Your task to perform on an android device: turn off picture-in-picture Image 0: 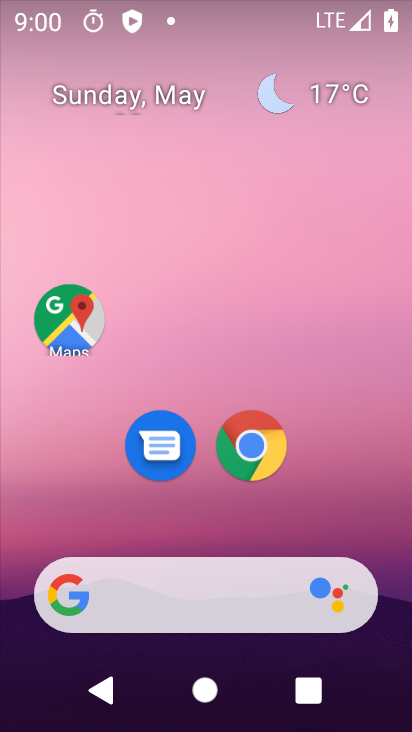
Step 0: drag from (207, 525) to (254, 130)
Your task to perform on an android device: turn off picture-in-picture Image 1: 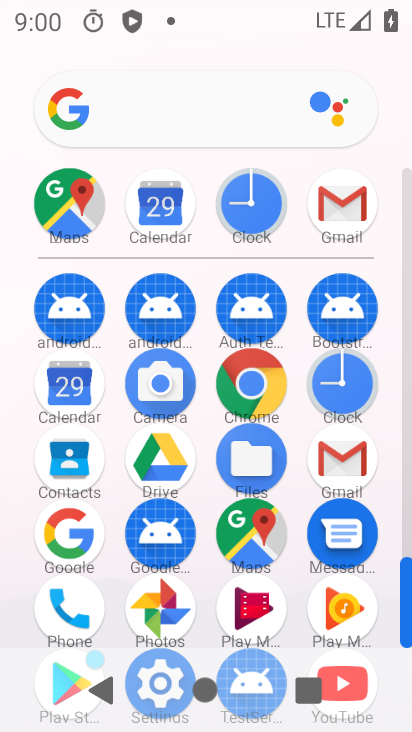
Step 1: drag from (202, 642) to (220, 206)
Your task to perform on an android device: turn off picture-in-picture Image 2: 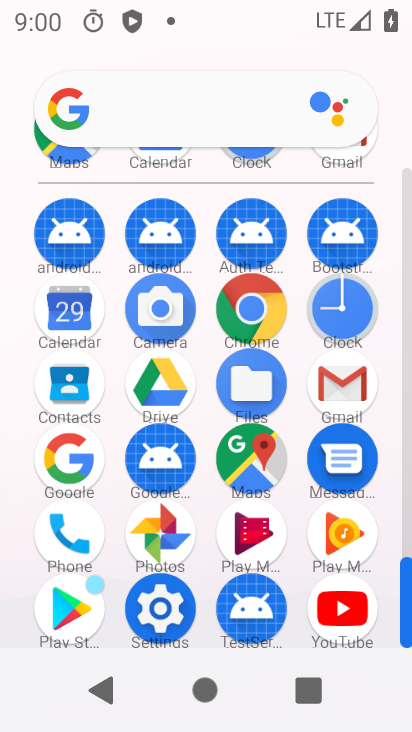
Step 2: click (160, 609)
Your task to perform on an android device: turn off picture-in-picture Image 3: 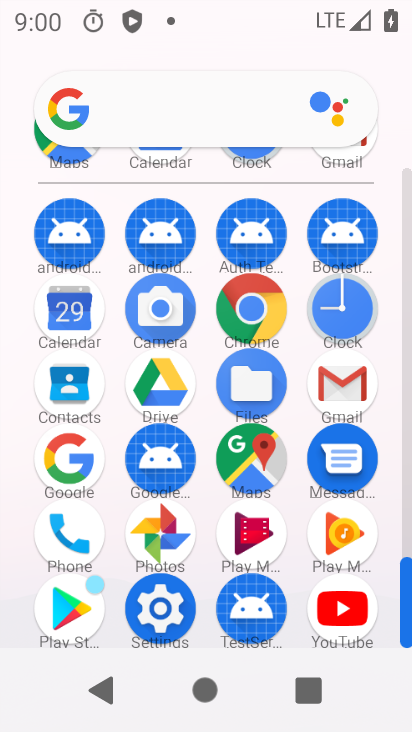
Step 3: click (160, 609)
Your task to perform on an android device: turn off picture-in-picture Image 4: 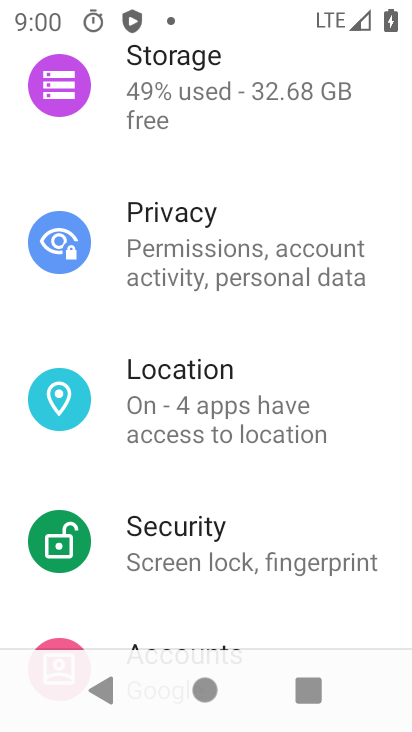
Step 4: drag from (160, 482) to (230, 215)
Your task to perform on an android device: turn off picture-in-picture Image 5: 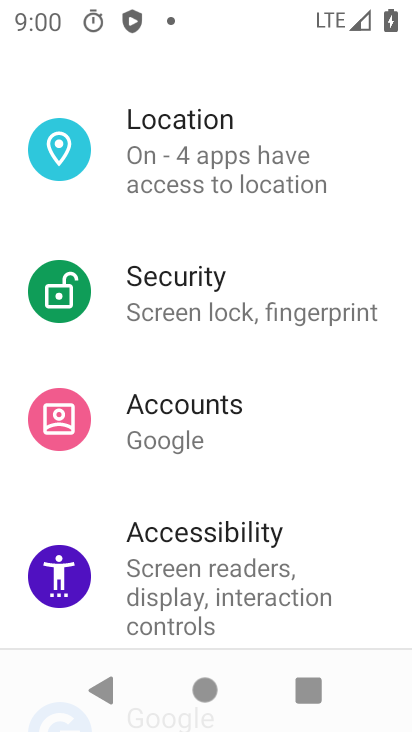
Step 5: drag from (229, 162) to (213, 720)
Your task to perform on an android device: turn off picture-in-picture Image 6: 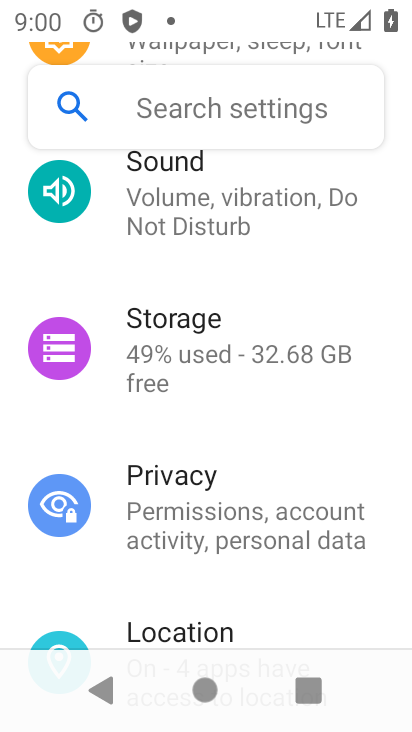
Step 6: drag from (226, 520) to (300, 696)
Your task to perform on an android device: turn off picture-in-picture Image 7: 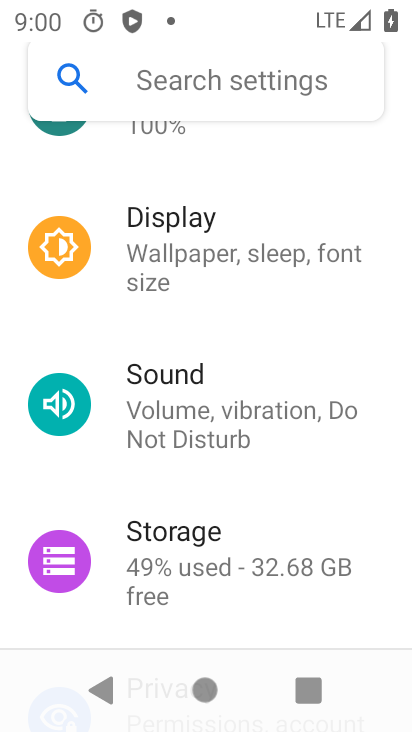
Step 7: drag from (179, 249) to (261, 647)
Your task to perform on an android device: turn off picture-in-picture Image 8: 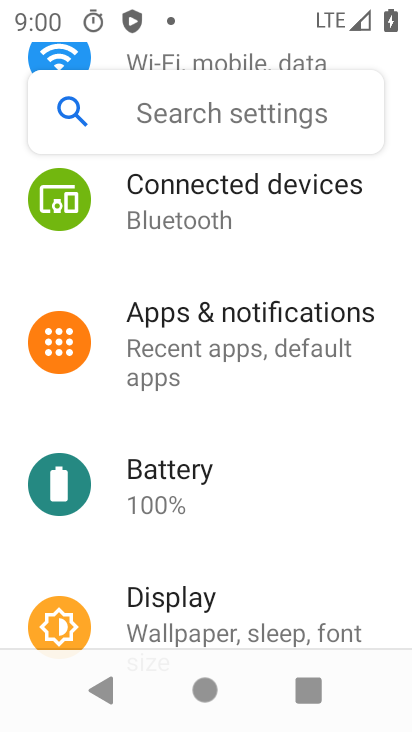
Step 8: click (213, 355)
Your task to perform on an android device: turn off picture-in-picture Image 9: 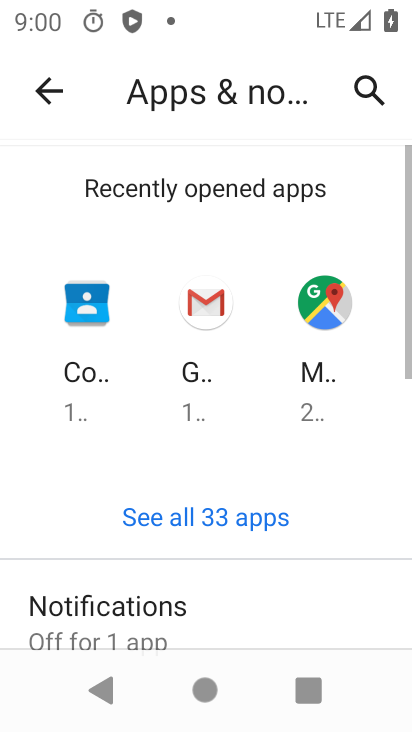
Step 9: drag from (210, 545) to (308, 100)
Your task to perform on an android device: turn off picture-in-picture Image 10: 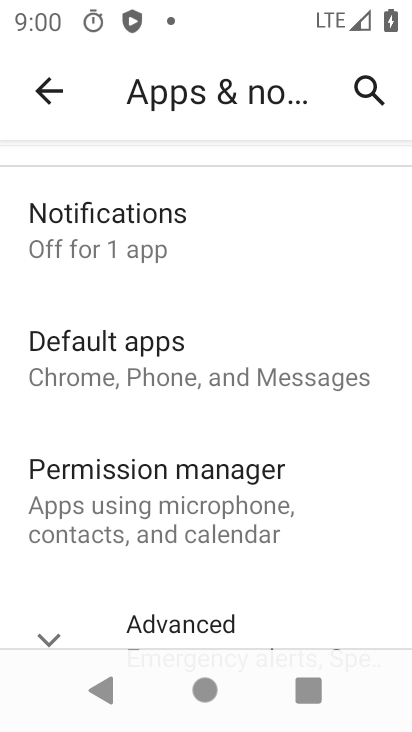
Step 10: drag from (179, 551) to (333, 101)
Your task to perform on an android device: turn off picture-in-picture Image 11: 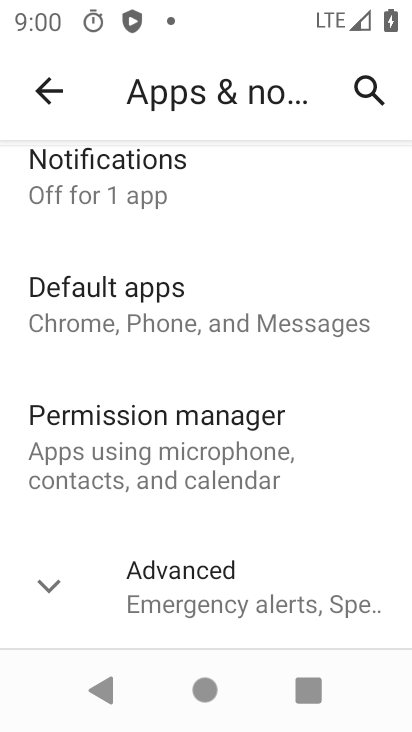
Step 11: click (184, 592)
Your task to perform on an android device: turn off picture-in-picture Image 12: 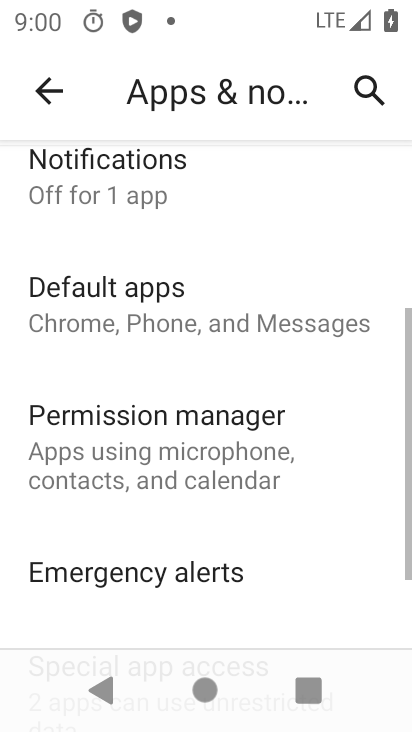
Step 12: drag from (185, 583) to (312, 81)
Your task to perform on an android device: turn off picture-in-picture Image 13: 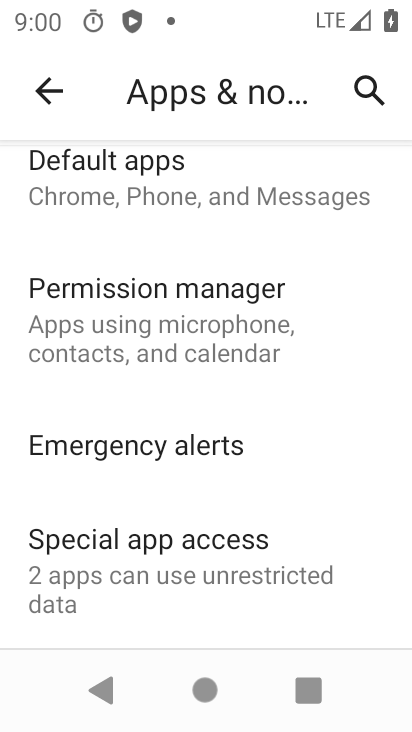
Step 13: click (126, 571)
Your task to perform on an android device: turn off picture-in-picture Image 14: 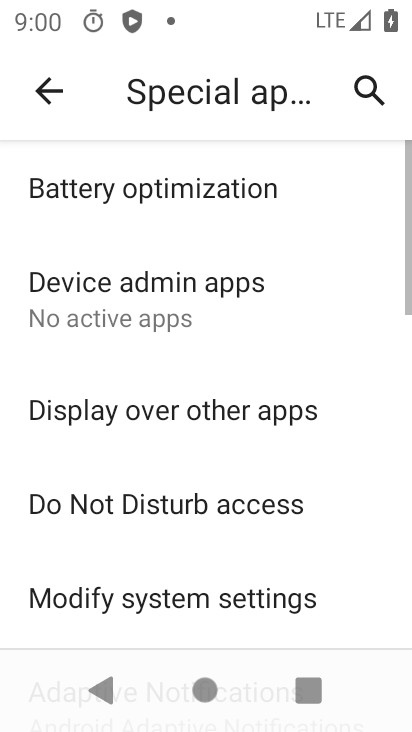
Step 14: drag from (133, 552) to (390, 8)
Your task to perform on an android device: turn off picture-in-picture Image 15: 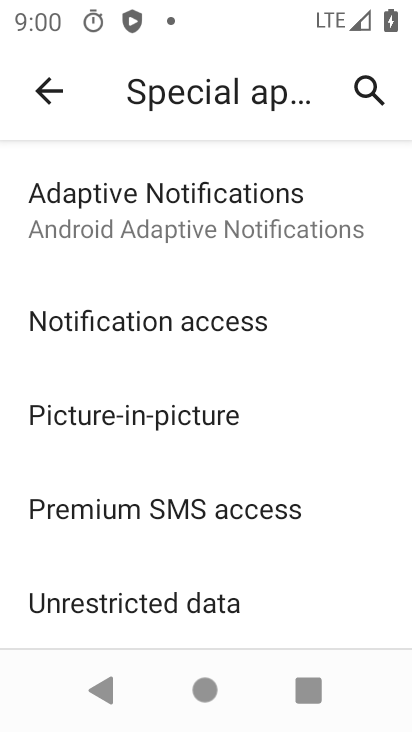
Step 15: click (164, 424)
Your task to perform on an android device: turn off picture-in-picture Image 16: 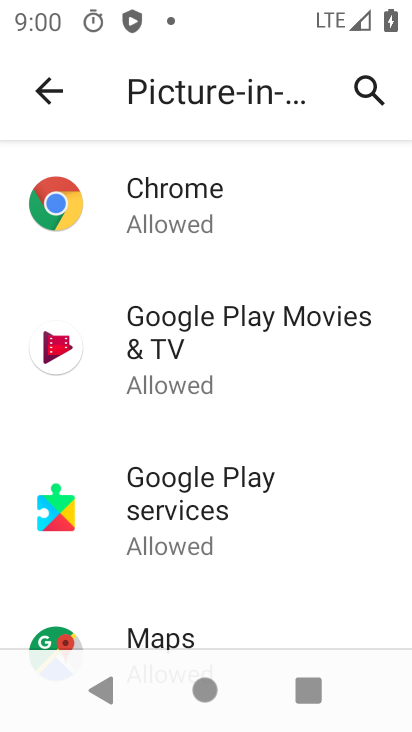
Step 16: task complete